Your task to perform on an android device: Open sound settings Image 0: 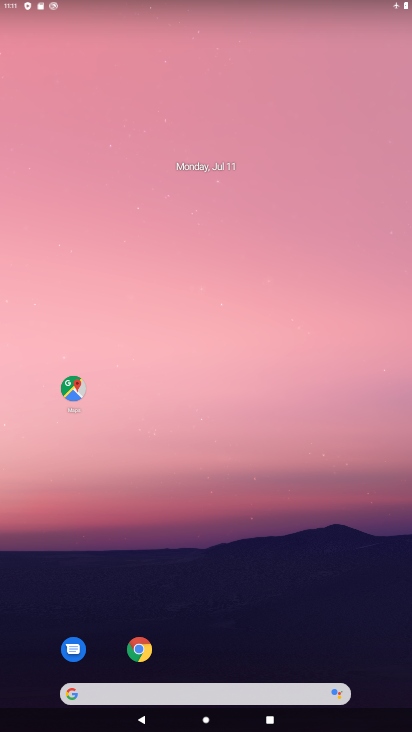
Step 0: drag from (291, 621) to (256, 168)
Your task to perform on an android device: Open sound settings Image 1: 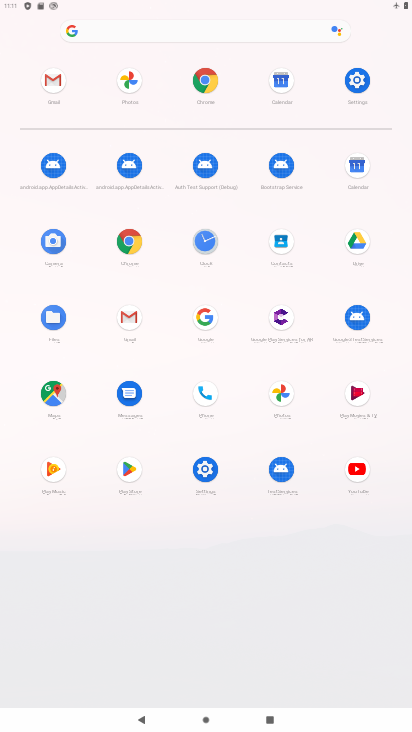
Step 1: click (362, 78)
Your task to perform on an android device: Open sound settings Image 2: 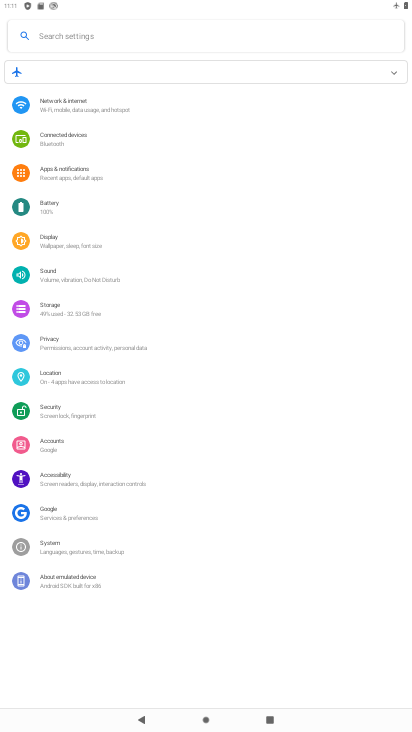
Step 2: click (86, 280)
Your task to perform on an android device: Open sound settings Image 3: 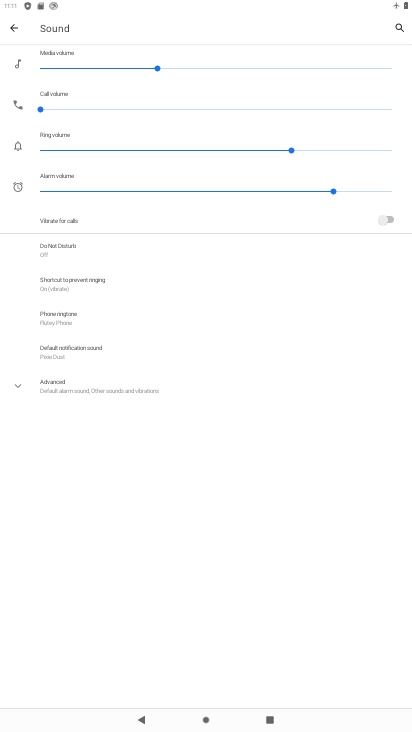
Step 3: task complete